Your task to perform on an android device: add a contact in the contacts app Image 0: 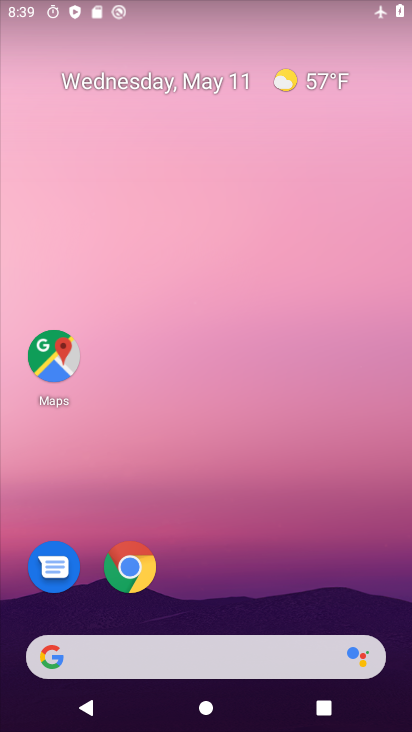
Step 0: drag from (246, 551) to (200, 94)
Your task to perform on an android device: add a contact in the contacts app Image 1: 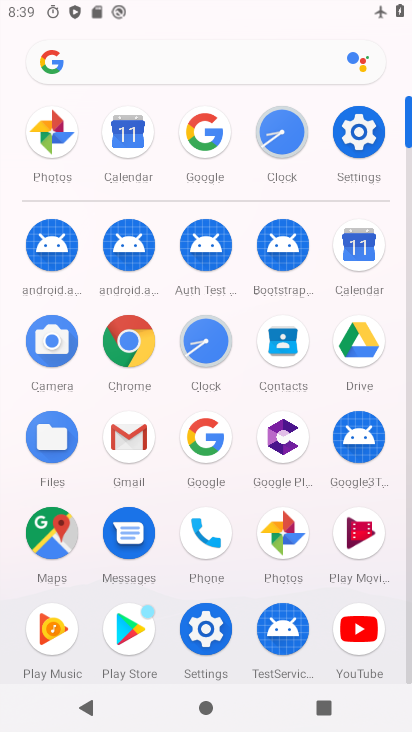
Step 1: click (295, 340)
Your task to perform on an android device: add a contact in the contacts app Image 2: 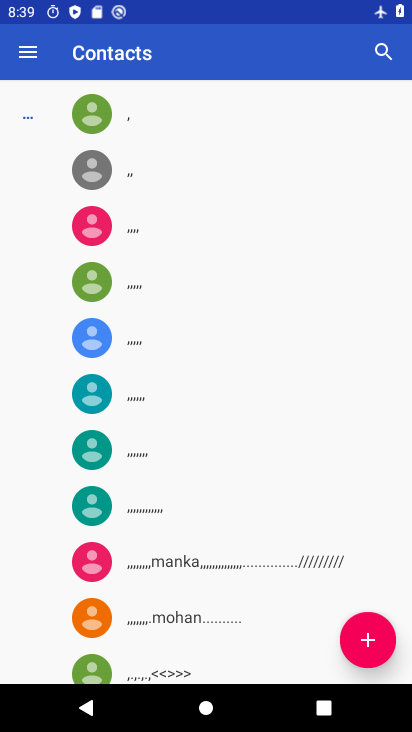
Step 2: click (376, 632)
Your task to perform on an android device: add a contact in the contacts app Image 3: 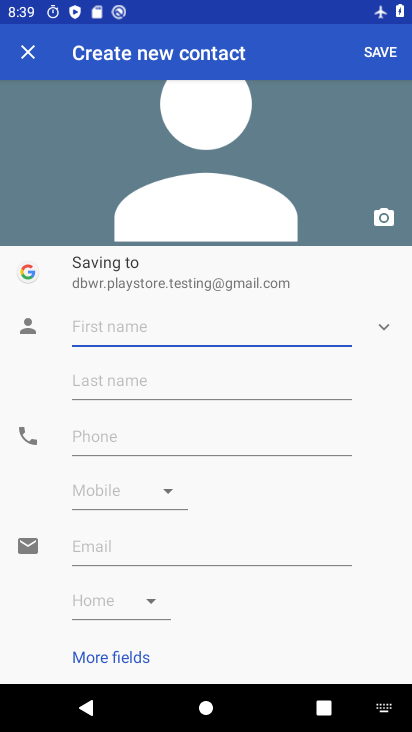
Step 3: type "fsdfsdf"
Your task to perform on an android device: add a contact in the contacts app Image 4: 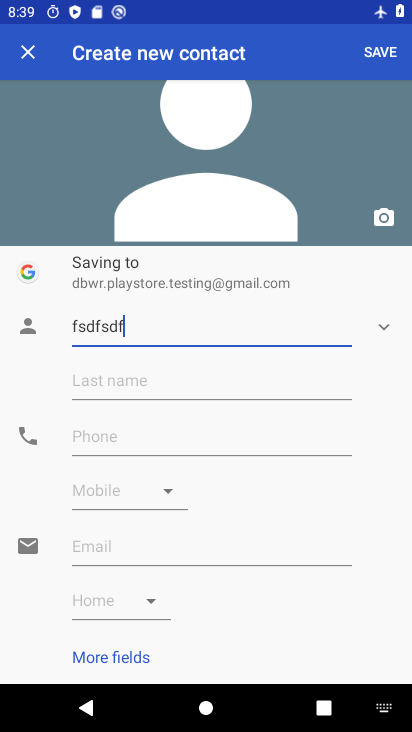
Step 4: type ""
Your task to perform on an android device: add a contact in the contacts app Image 5: 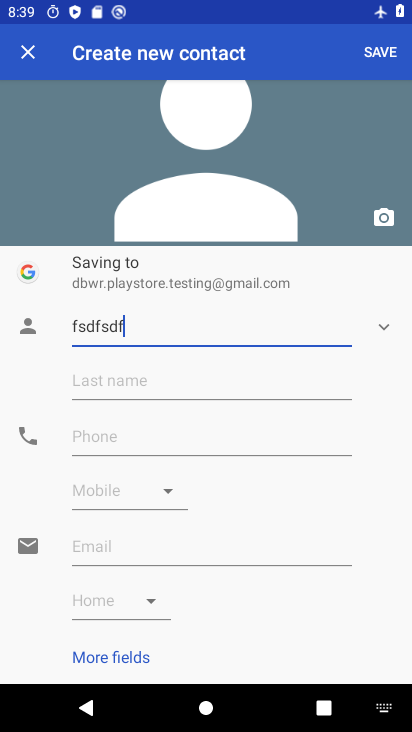
Step 5: click (255, 385)
Your task to perform on an android device: add a contact in the contacts app Image 6: 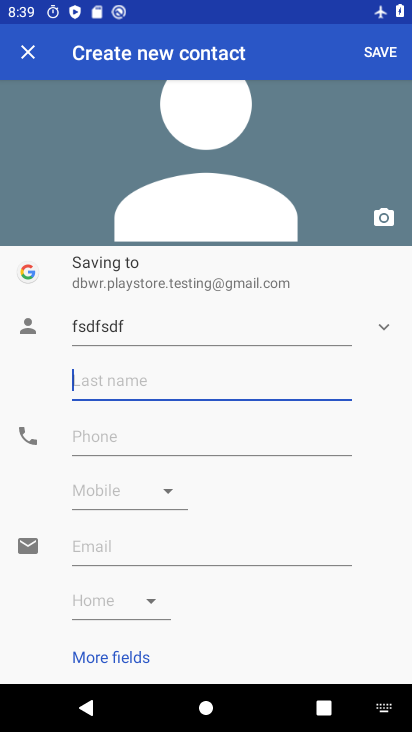
Step 6: type "hfghdg"
Your task to perform on an android device: add a contact in the contacts app Image 7: 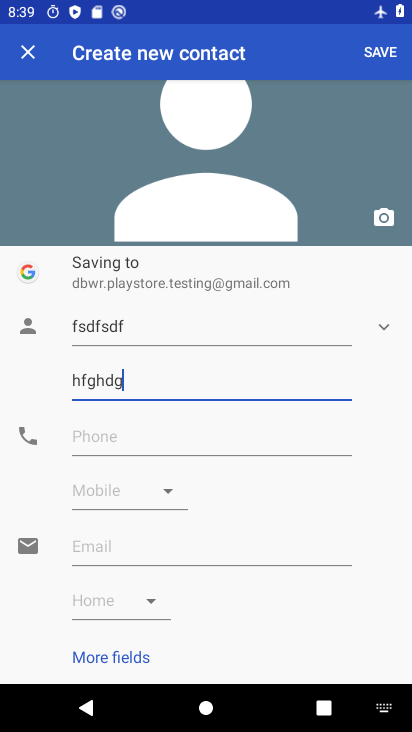
Step 7: type ""
Your task to perform on an android device: add a contact in the contacts app Image 8: 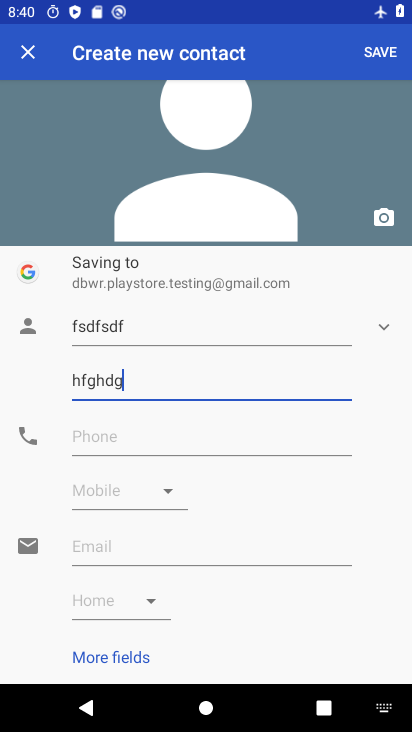
Step 8: click (247, 438)
Your task to perform on an android device: add a contact in the contacts app Image 9: 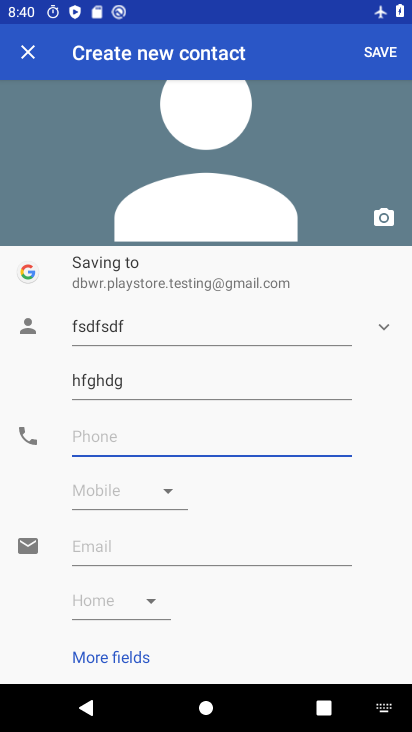
Step 9: type "564564564"
Your task to perform on an android device: add a contact in the contacts app Image 10: 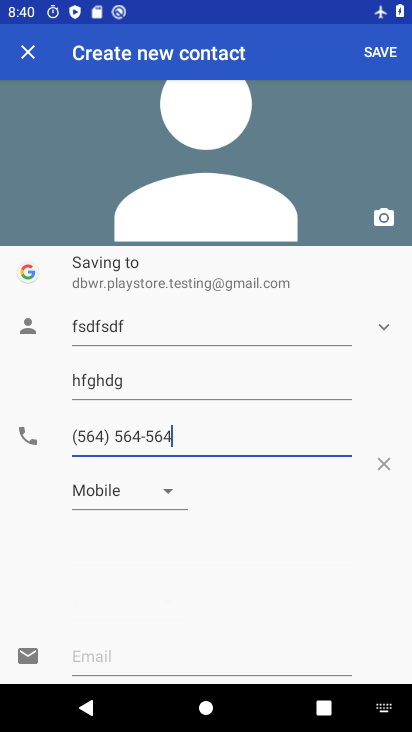
Step 10: type ""
Your task to perform on an android device: add a contact in the contacts app Image 11: 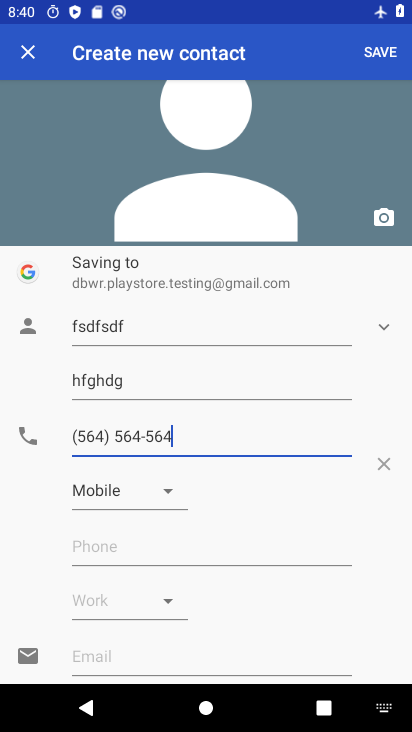
Step 11: click (386, 50)
Your task to perform on an android device: add a contact in the contacts app Image 12: 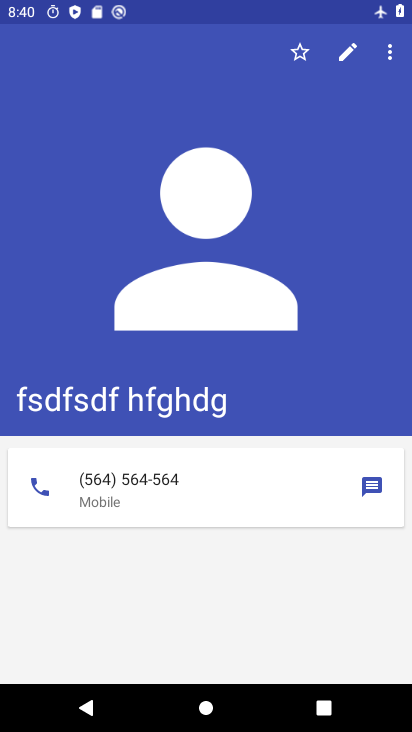
Step 12: task complete